Your task to perform on an android device: turn notification dots on Image 0: 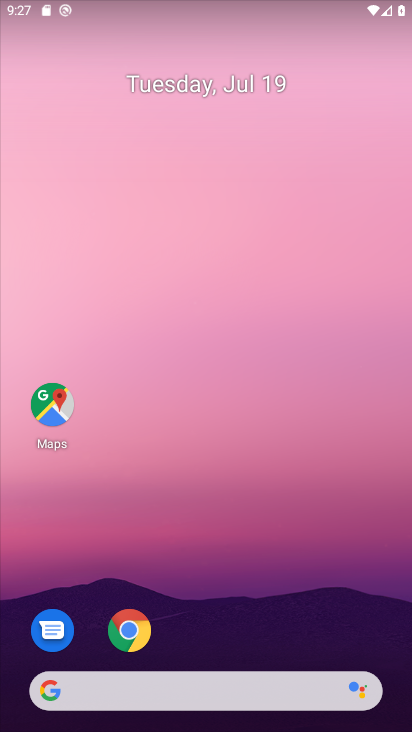
Step 0: drag from (223, 613) to (239, 0)
Your task to perform on an android device: turn notification dots on Image 1: 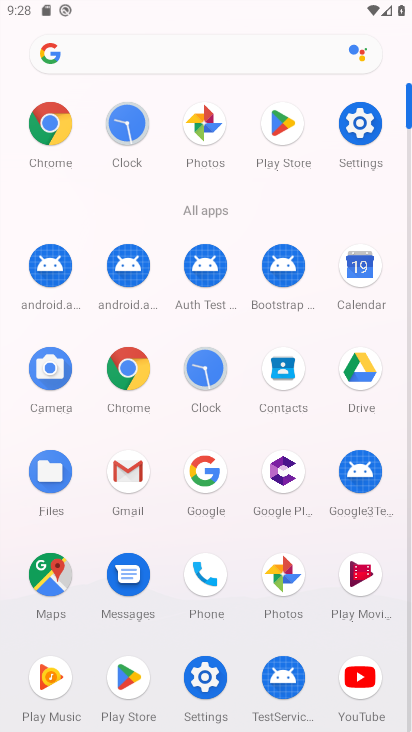
Step 1: click (211, 682)
Your task to perform on an android device: turn notification dots on Image 2: 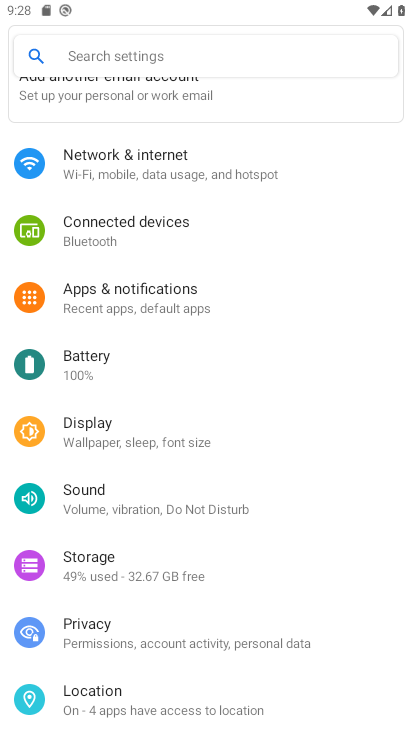
Step 2: click (137, 302)
Your task to perform on an android device: turn notification dots on Image 3: 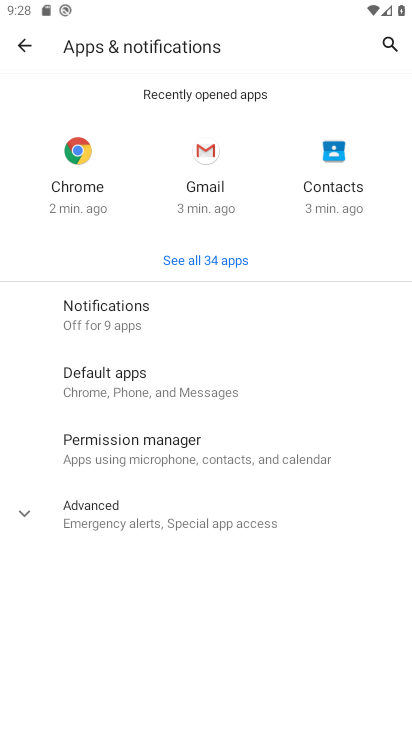
Step 3: click (134, 320)
Your task to perform on an android device: turn notification dots on Image 4: 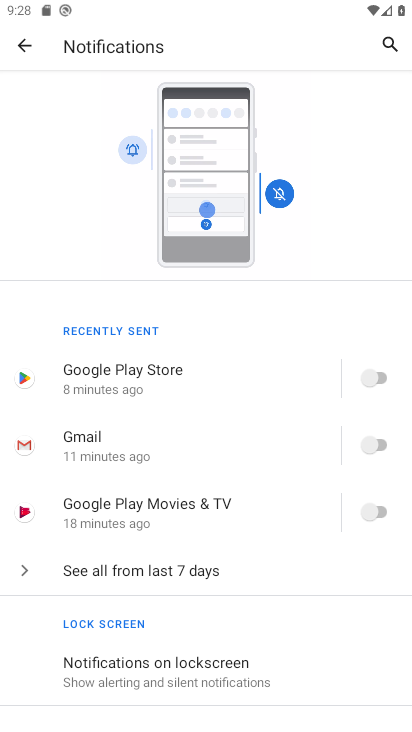
Step 4: drag from (161, 655) to (181, 322)
Your task to perform on an android device: turn notification dots on Image 5: 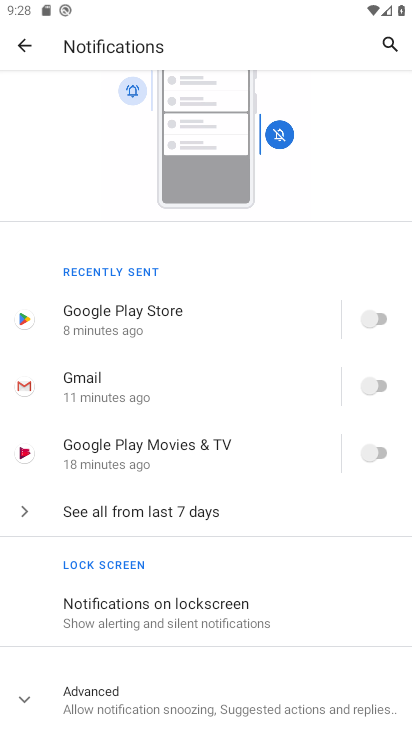
Step 5: drag from (176, 629) to (182, 551)
Your task to perform on an android device: turn notification dots on Image 6: 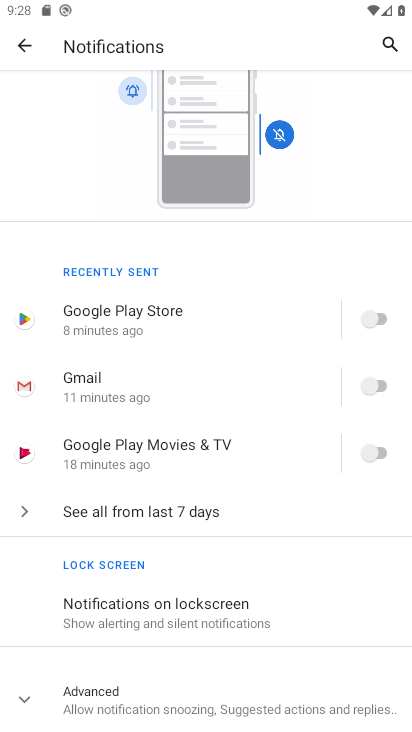
Step 6: click (131, 696)
Your task to perform on an android device: turn notification dots on Image 7: 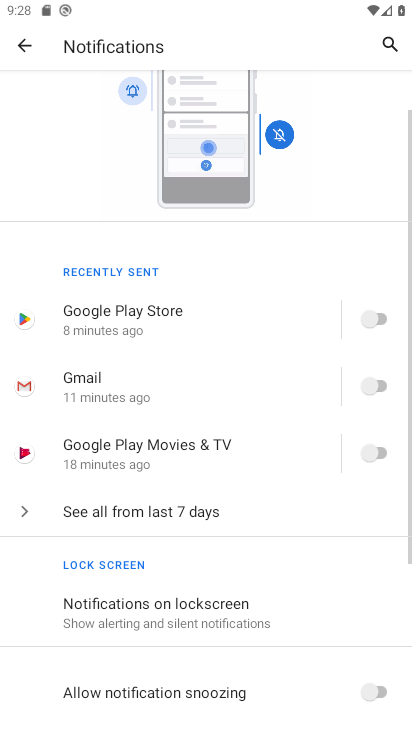
Step 7: task complete